Your task to perform on an android device: Open calendar and show me the third week of next month Image 0: 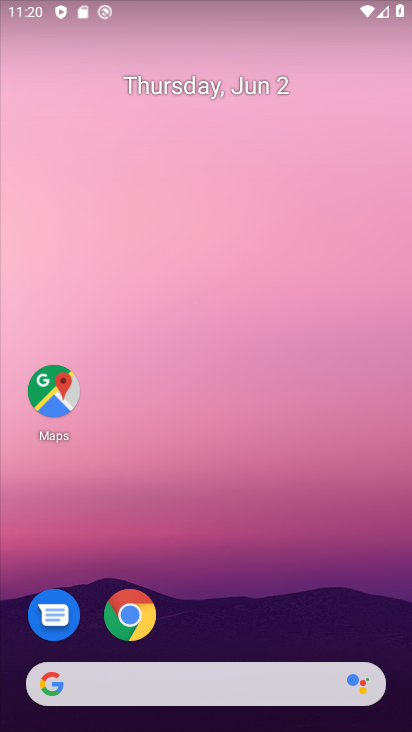
Step 0: click (200, 89)
Your task to perform on an android device: Open calendar and show me the third week of next month Image 1: 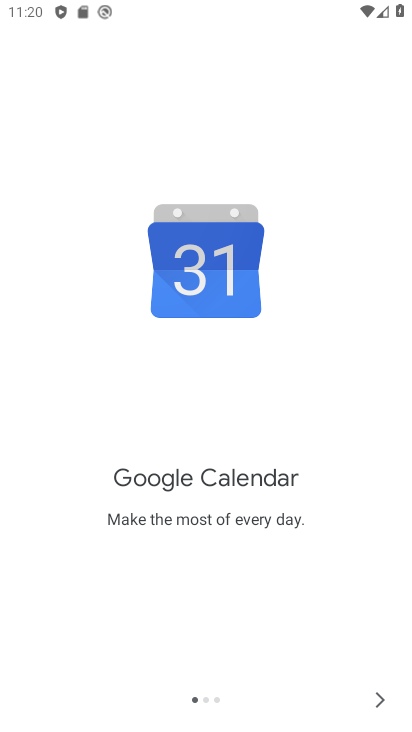
Step 1: click (382, 696)
Your task to perform on an android device: Open calendar and show me the third week of next month Image 2: 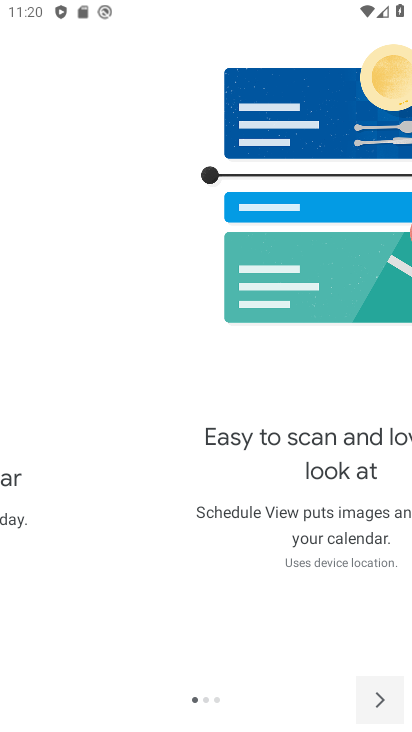
Step 2: click (381, 697)
Your task to perform on an android device: Open calendar and show me the third week of next month Image 3: 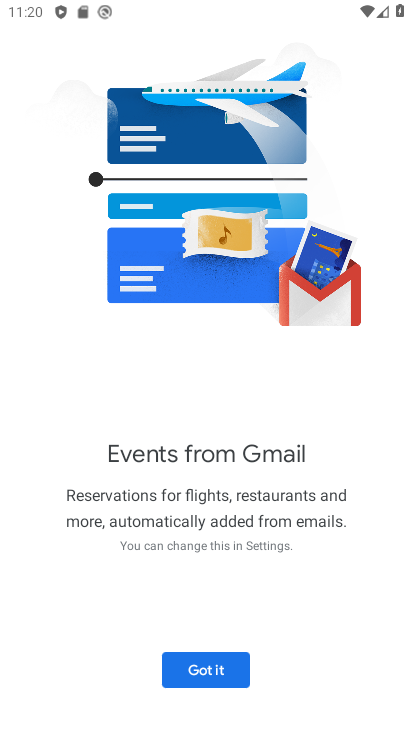
Step 3: click (226, 661)
Your task to perform on an android device: Open calendar and show me the third week of next month Image 4: 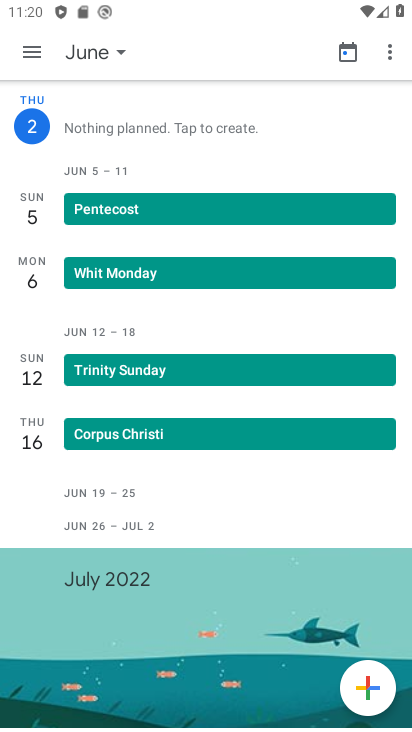
Step 4: click (37, 50)
Your task to perform on an android device: Open calendar and show me the third week of next month Image 5: 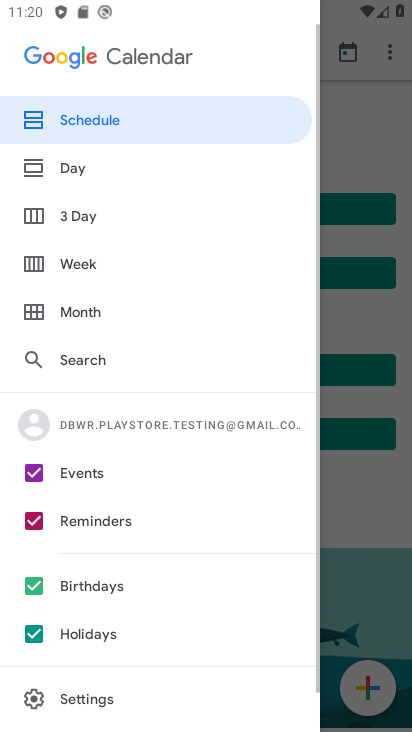
Step 5: click (108, 252)
Your task to perform on an android device: Open calendar and show me the third week of next month Image 6: 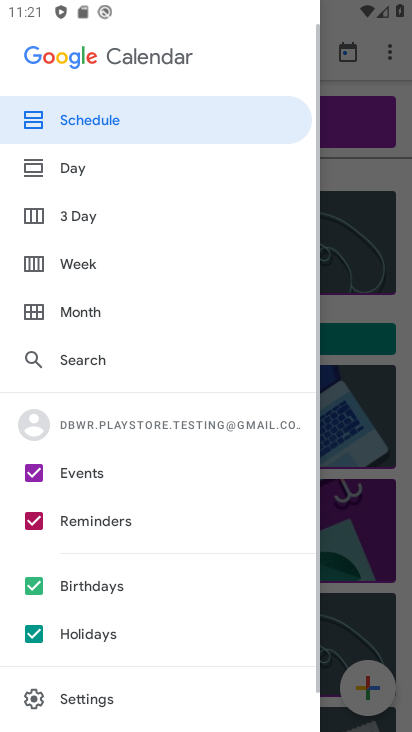
Step 6: click (98, 268)
Your task to perform on an android device: Open calendar and show me the third week of next month Image 7: 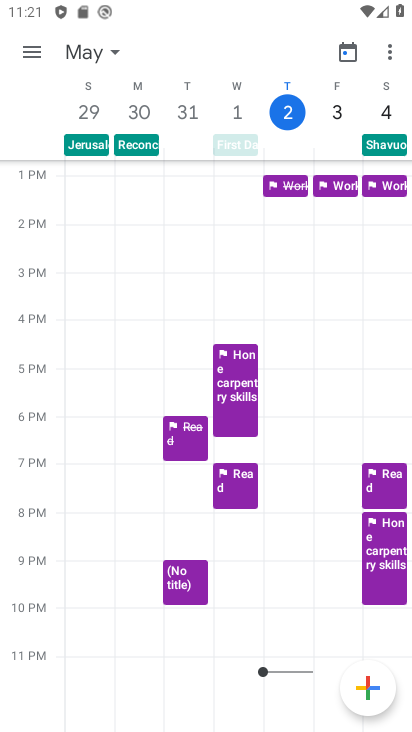
Step 7: click (110, 57)
Your task to perform on an android device: Open calendar and show me the third week of next month Image 8: 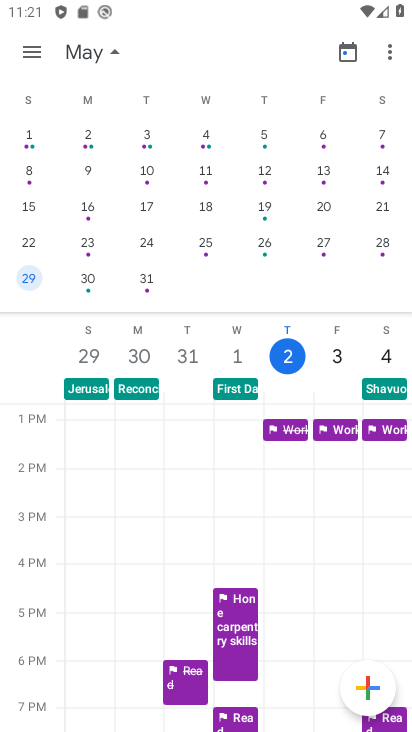
Step 8: drag from (360, 194) to (3, 230)
Your task to perform on an android device: Open calendar and show me the third week of next month Image 9: 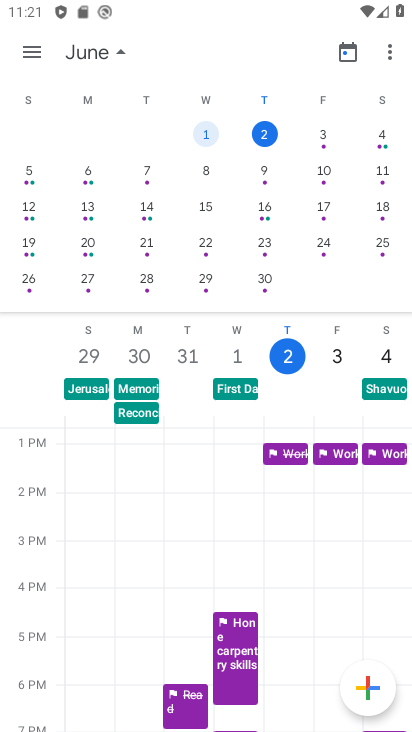
Step 9: drag from (362, 207) to (41, 239)
Your task to perform on an android device: Open calendar and show me the third week of next month Image 10: 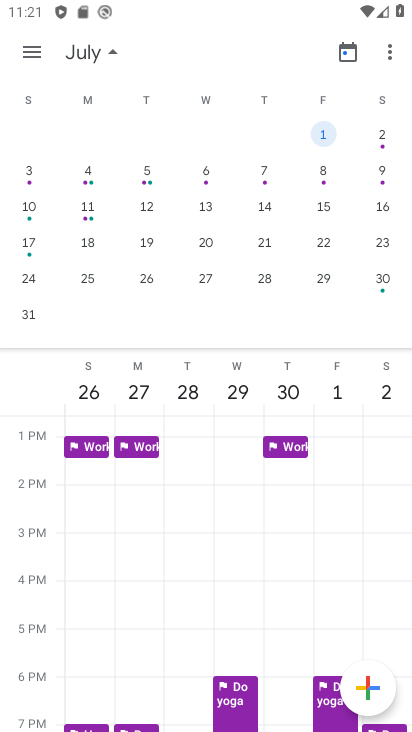
Step 10: click (34, 239)
Your task to perform on an android device: Open calendar and show me the third week of next month Image 11: 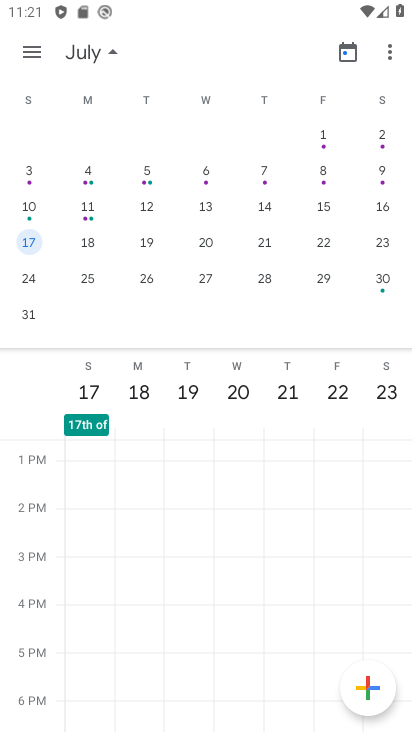
Step 11: click (39, 201)
Your task to perform on an android device: Open calendar and show me the third week of next month Image 12: 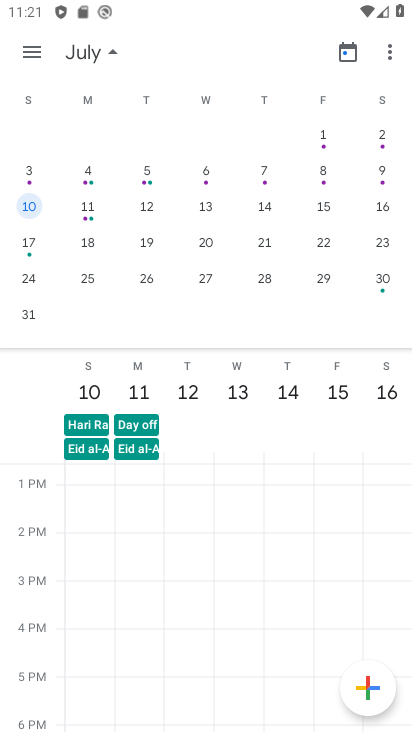
Step 12: task complete